Your task to perform on an android device: set default search engine in the chrome app Image 0: 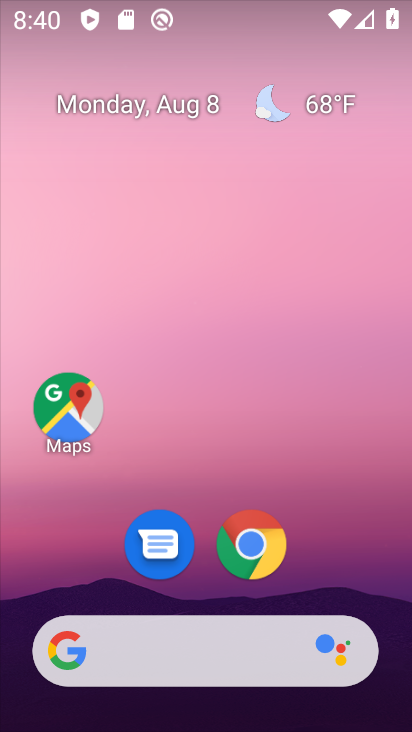
Step 0: press home button
Your task to perform on an android device: set default search engine in the chrome app Image 1: 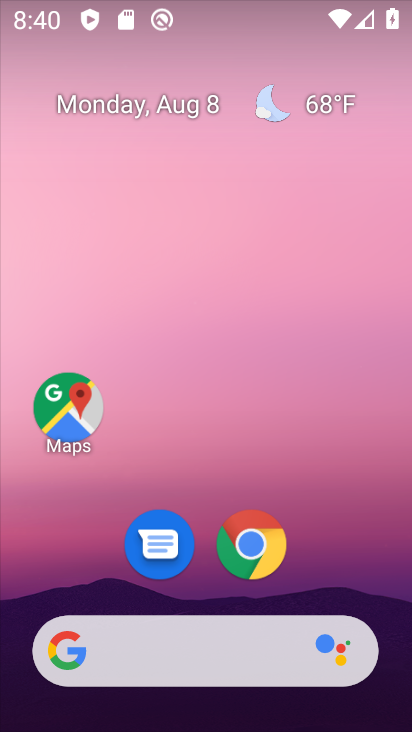
Step 1: click (245, 540)
Your task to perform on an android device: set default search engine in the chrome app Image 2: 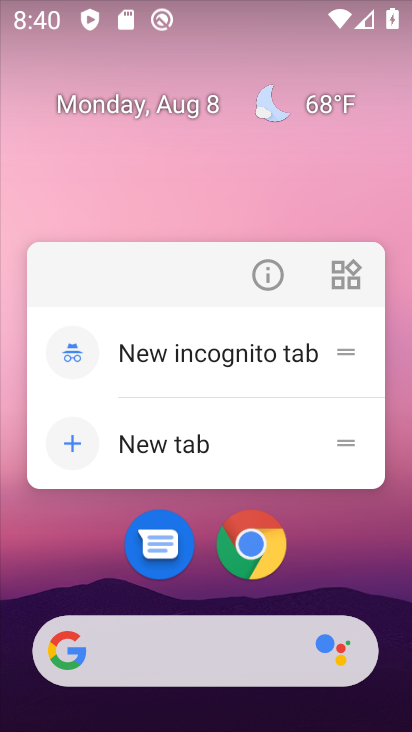
Step 2: click (312, 548)
Your task to perform on an android device: set default search engine in the chrome app Image 3: 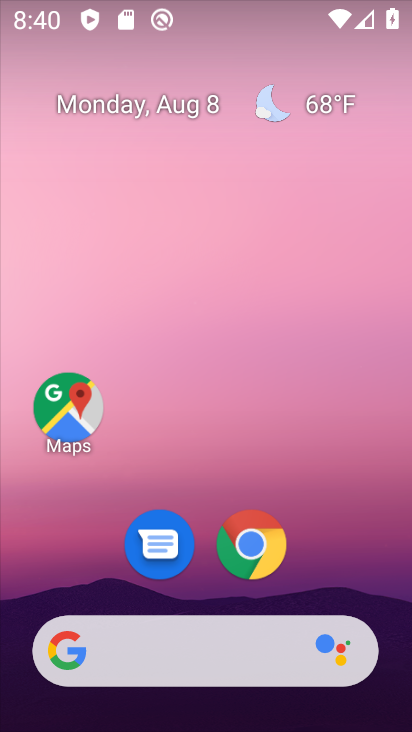
Step 3: drag from (321, 584) to (334, 45)
Your task to perform on an android device: set default search engine in the chrome app Image 4: 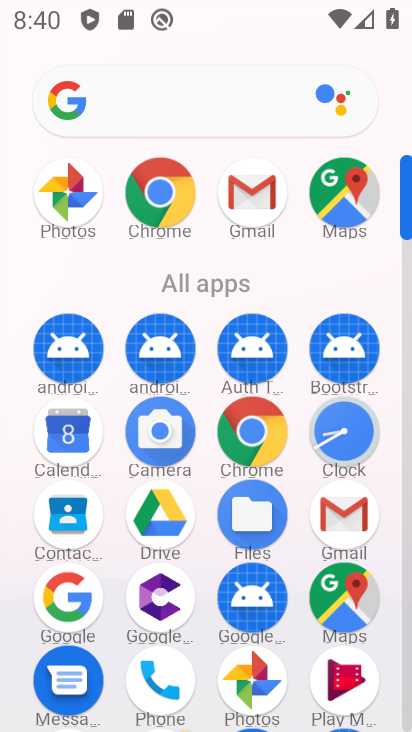
Step 4: click (155, 186)
Your task to perform on an android device: set default search engine in the chrome app Image 5: 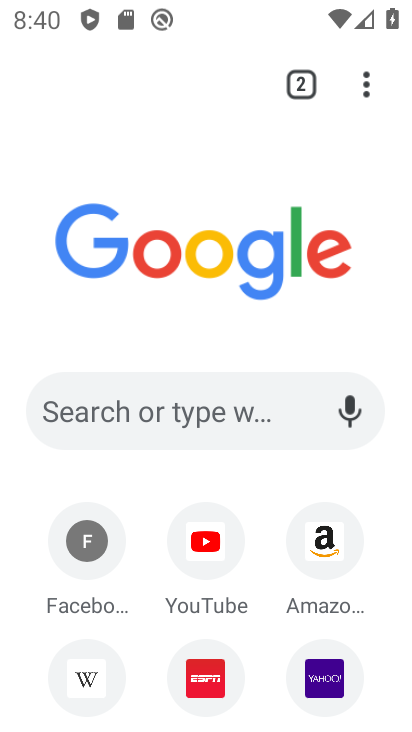
Step 5: click (369, 80)
Your task to perform on an android device: set default search engine in the chrome app Image 6: 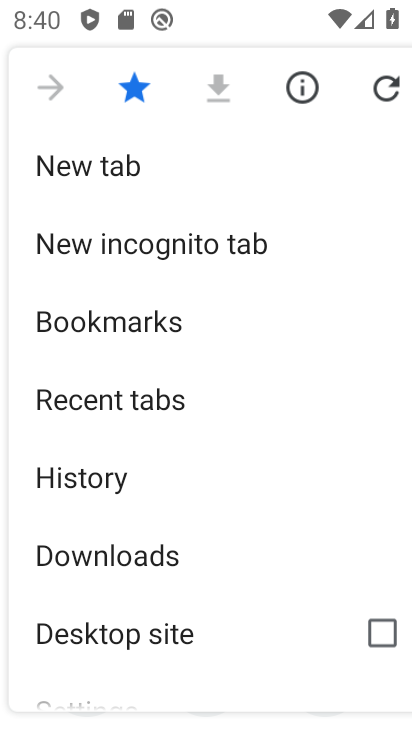
Step 6: drag from (208, 606) to (241, 71)
Your task to perform on an android device: set default search engine in the chrome app Image 7: 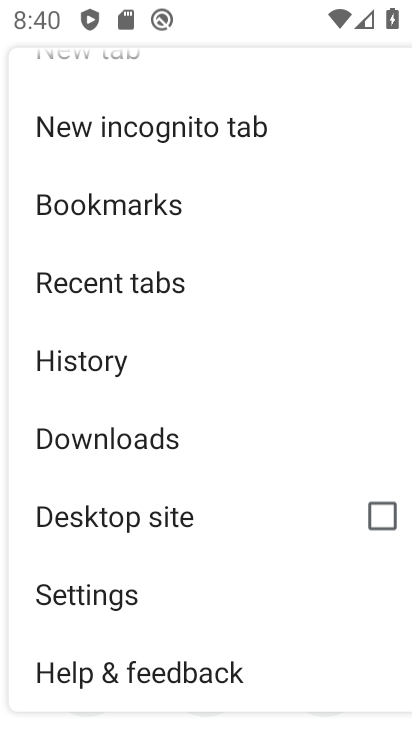
Step 7: click (151, 597)
Your task to perform on an android device: set default search engine in the chrome app Image 8: 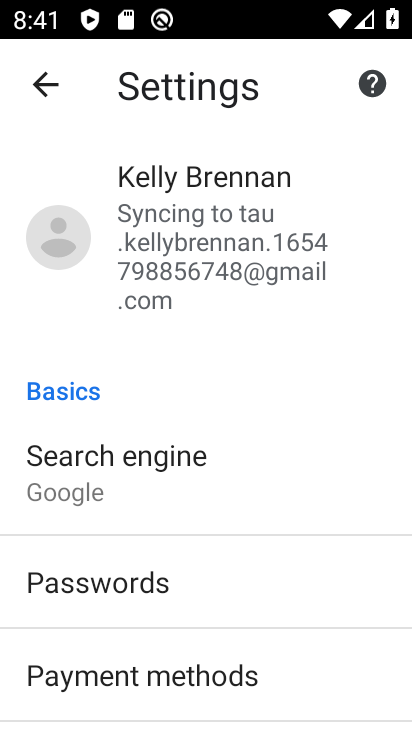
Step 8: click (133, 477)
Your task to perform on an android device: set default search engine in the chrome app Image 9: 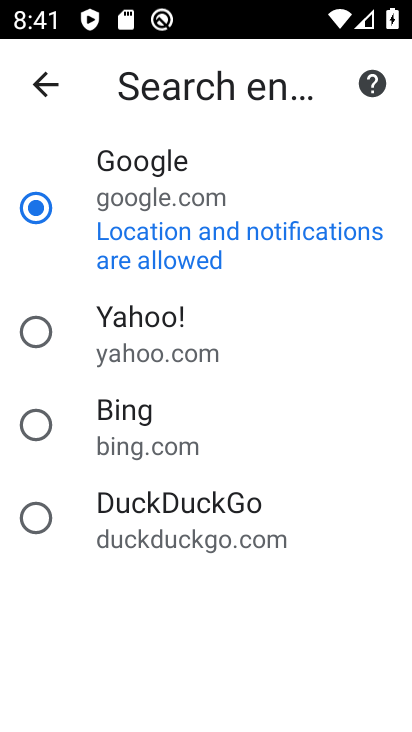
Step 9: click (40, 336)
Your task to perform on an android device: set default search engine in the chrome app Image 10: 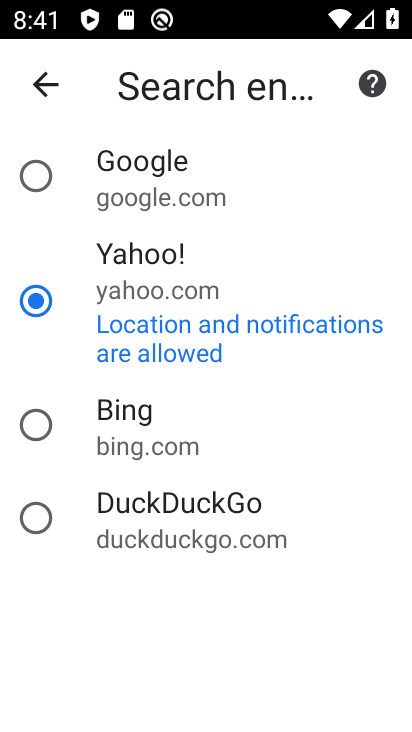
Step 10: task complete